Your task to perform on an android device: turn on location history Image 0: 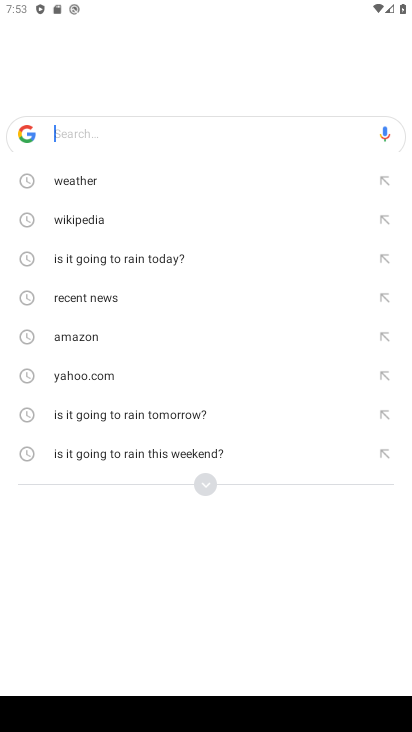
Step 0: press home button
Your task to perform on an android device: turn on location history Image 1: 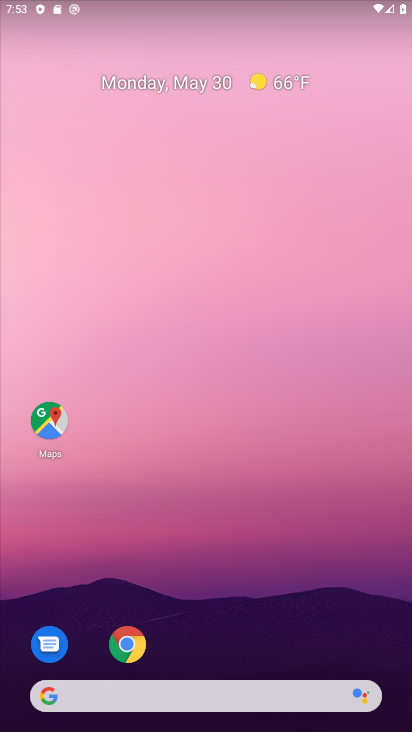
Step 1: drag from (215, 617) to (225, 100)
Your task to perform on an android device: turn on location history Image 2: 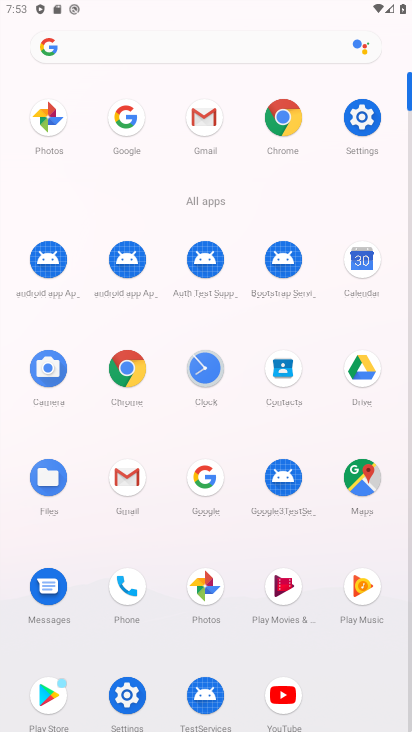
Step 2: click (370, 124)
Your task to perform on an android device: turn on location history Image 3: 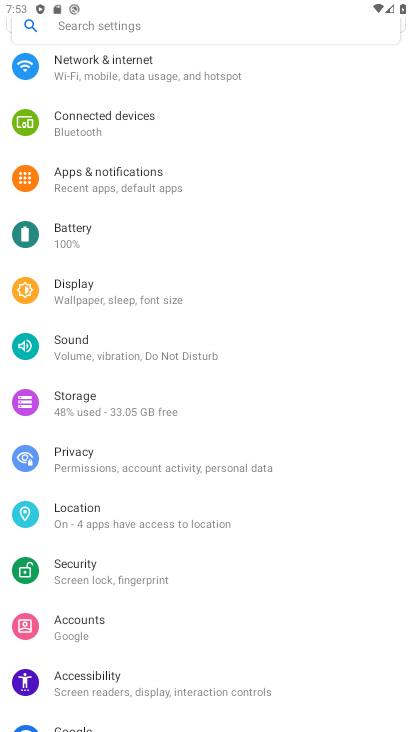
Step 3: click (91, 509)
Your task to perform on an android device: turn on location history Image 4: 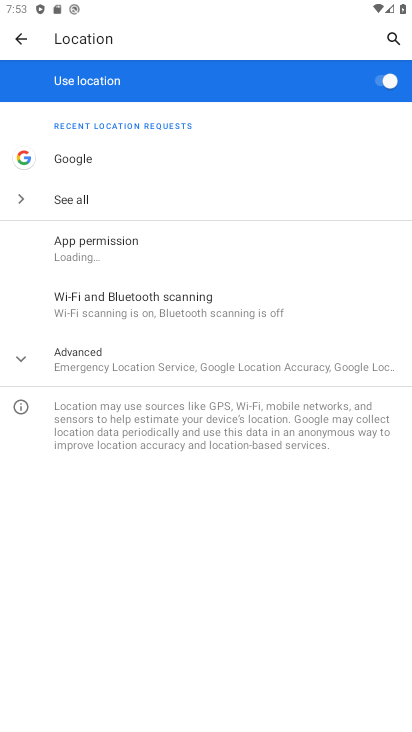
Step 4: click (90, 362)
Your task to perform on an android device: turn on location history Image 5: 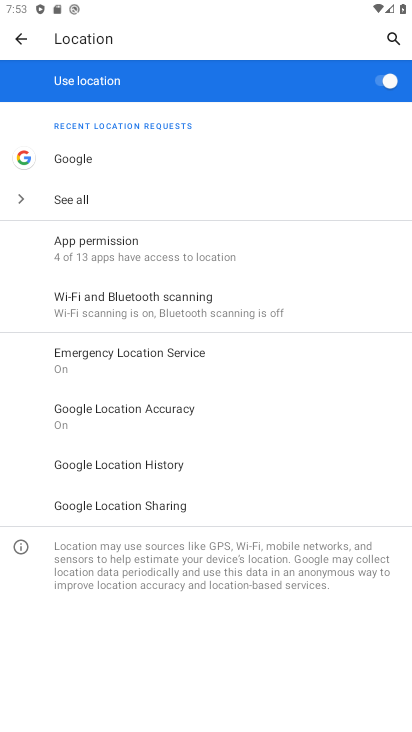
Step 5: click (119, 461)
Your task to perform on an android device: turn on location history Image 6: 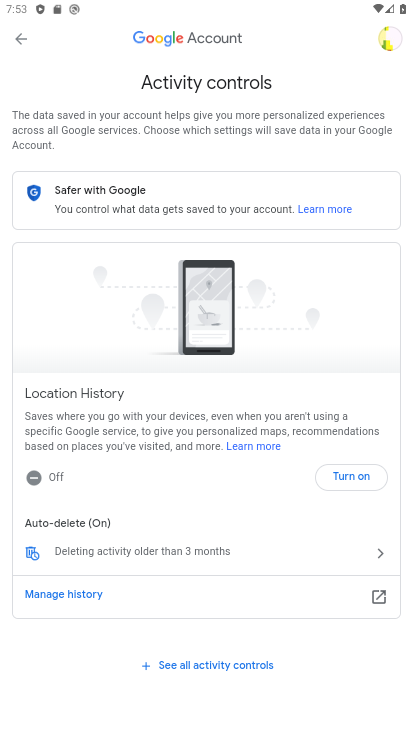
Step 6: click (360, 475)
Your task to perform on an android device: turn on location history Image 7: 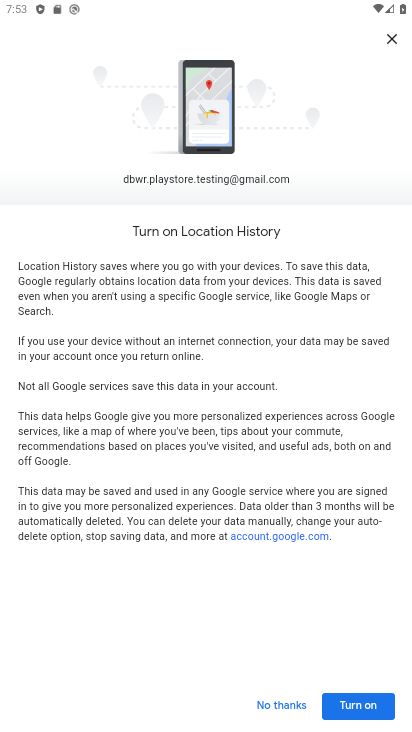
Step 7: click (353, 707)
Your task to perform on an android device: turn on location history Image 8: 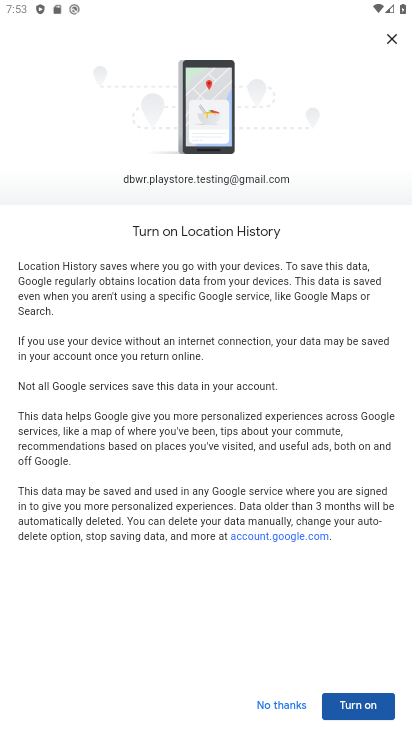
Step 8: click (361, 710)
Your task to perform on an android device: turn on location history Image 9: 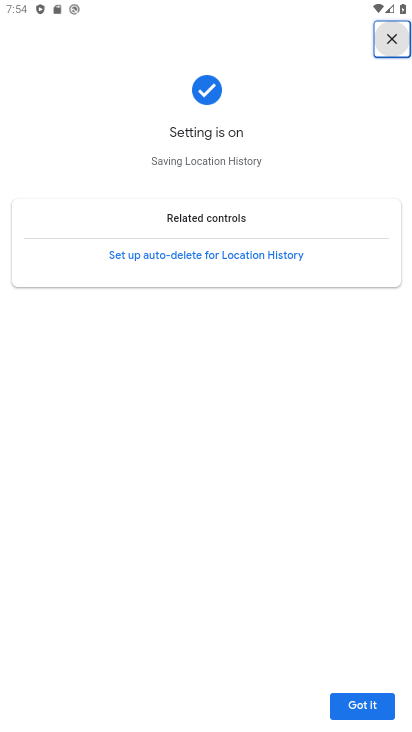
Step 9: click (354, 709)
Your task to perform on an android device: turn on location history Image 10: 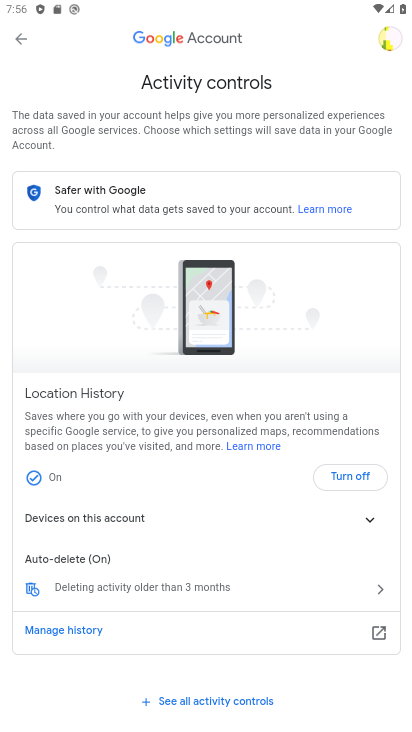
Step 10: task complete